Your task to perform on an android device: Go to network settings Image 0: 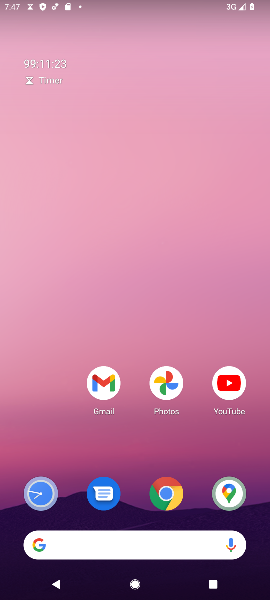
Step 0: drag from (155, 480) to (201, 150)
Your task to perform on an android device: Go to network settings Image 1: 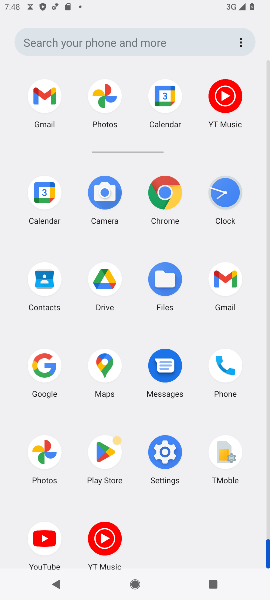
Step 1: click (164, 451)
Your task to perform on an android device: Go to network settings Image 2: 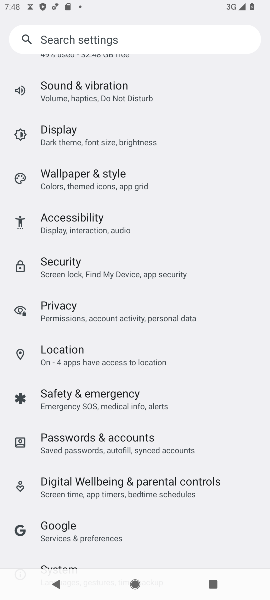
Step 2: drag from (112, 80) to (107, 438)
Your task to perform on an android device: Go to network settings Image 3: 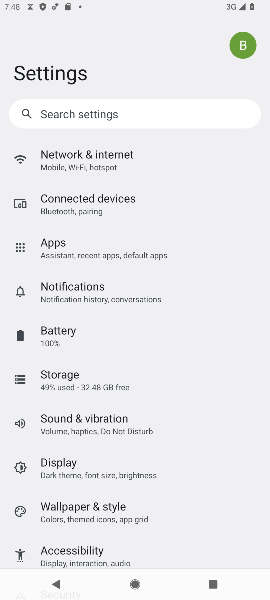
Step 3: click (67, 158)
Your task to perform on an android device: Go to network settings Image 4: 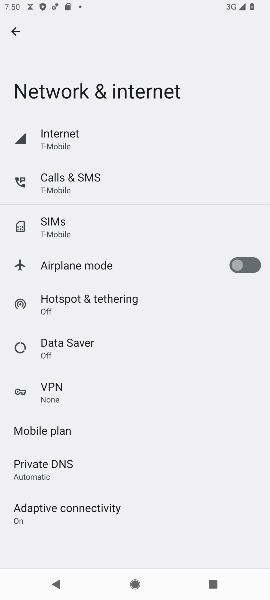
Step 4: task complete